Your task to perform on an android device: Go to Wikipedia Image 0: 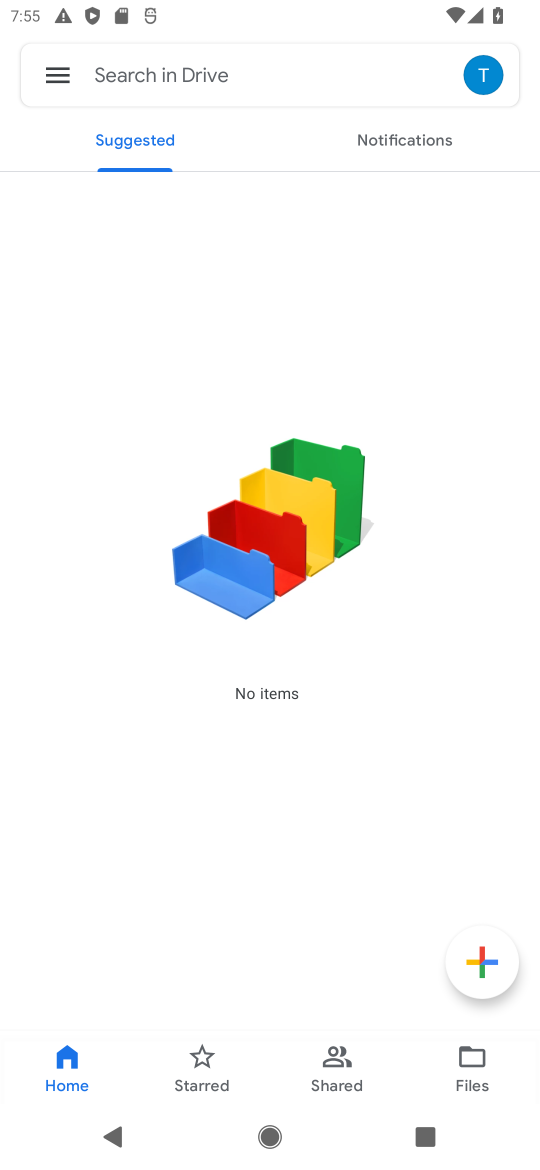
Step 0: press home button
Your task to perform on an android device: Go to Wikipedia Image 1: 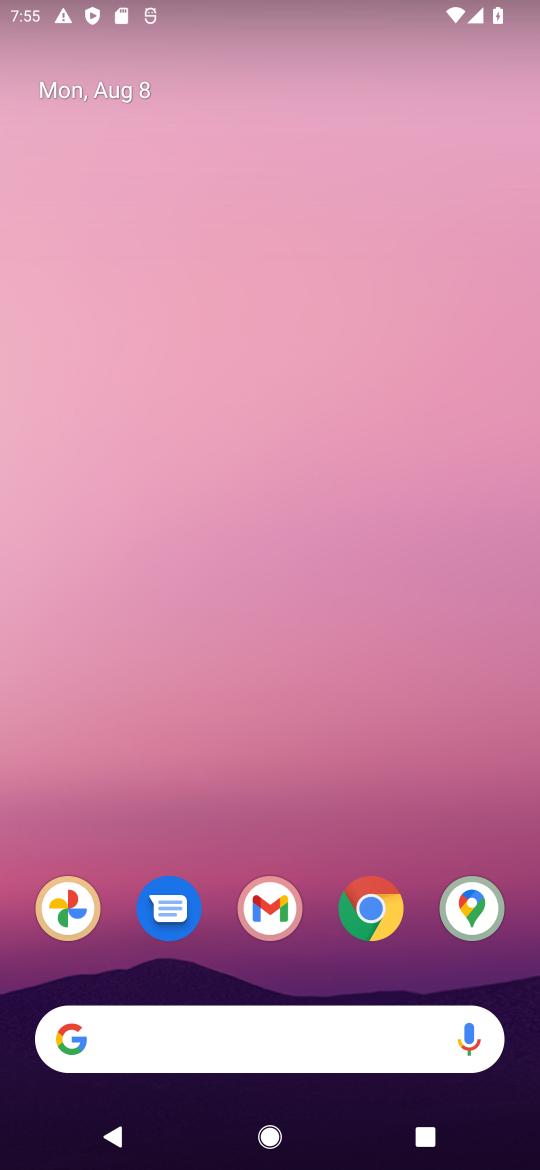
Step 1: click (368, 912)
Your task to perform on an android device: Go to Wikipedia Image 2: 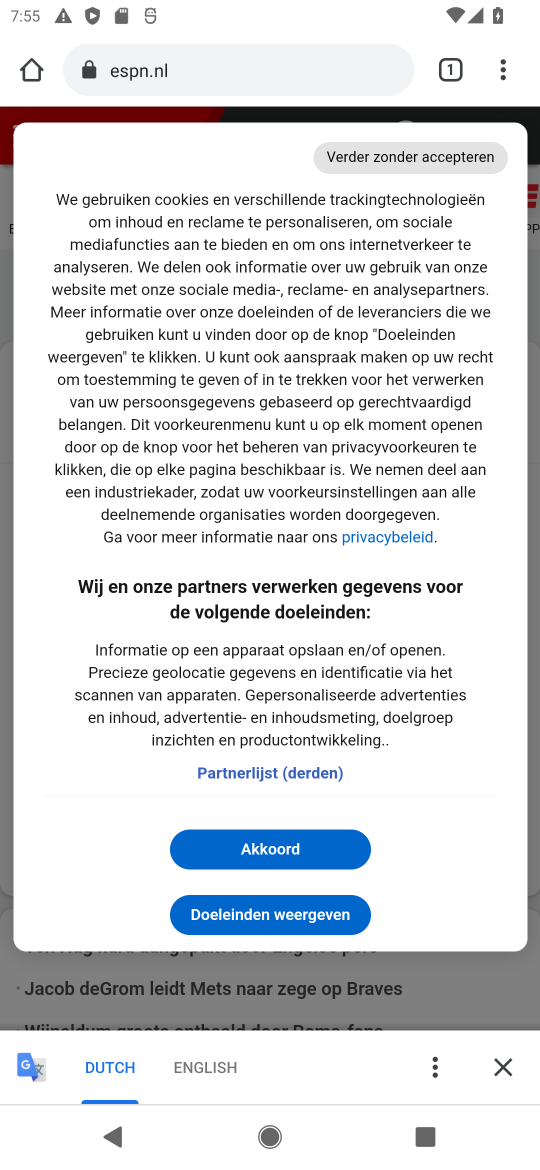
Step 2: click (449, 64)
Your task to perform on an android device: Go to Wikipedia Image 3: 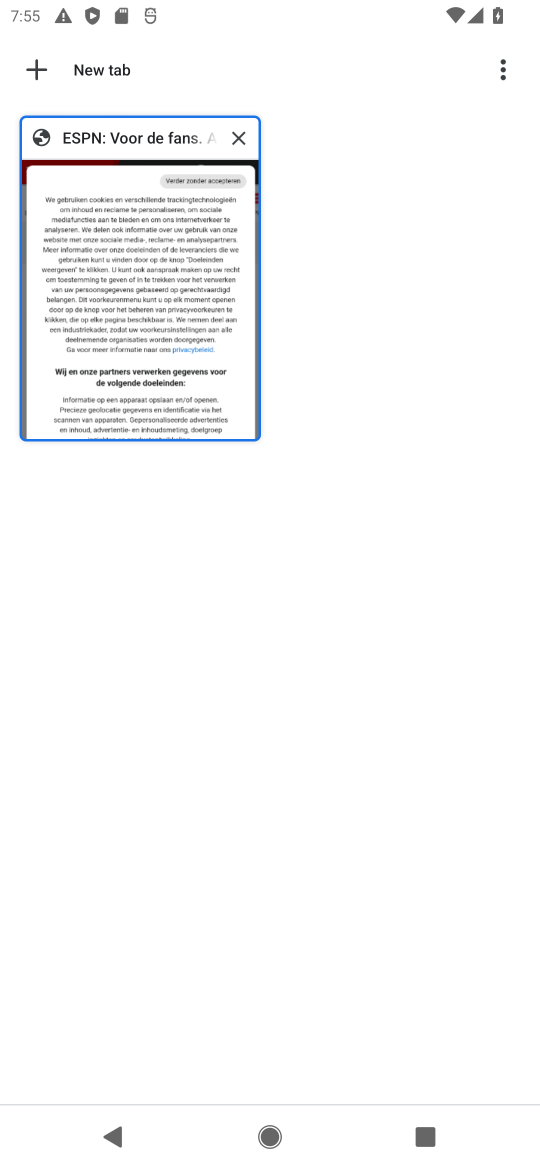
Step 3: click (514, 71)
Your task to perform on an android device: Go to Wikipedia Image 4: 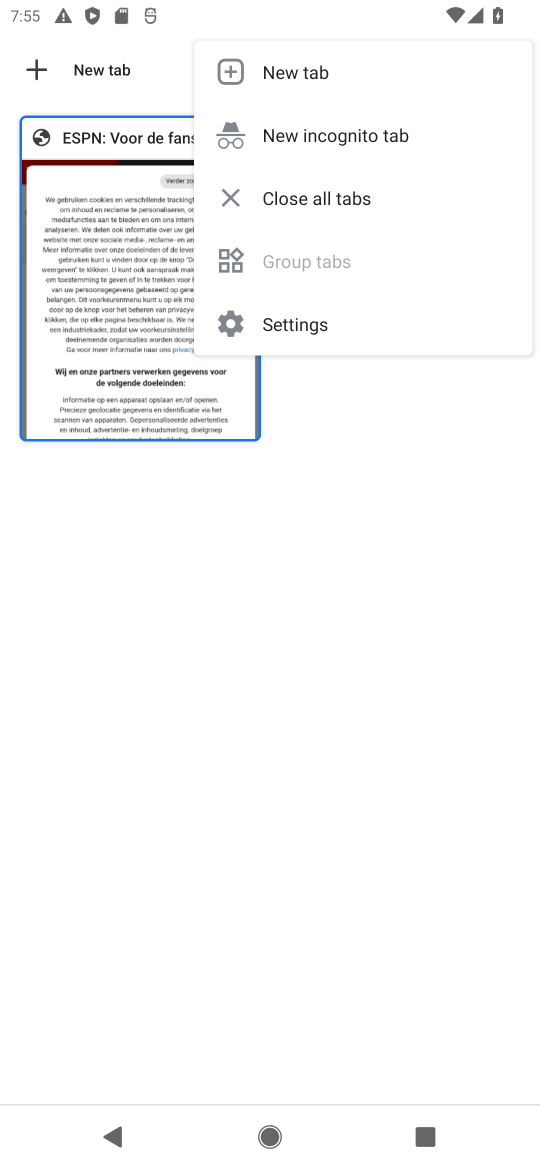
Step 4: click (405, 83)
Your task to perform on an android device: Go to Wikipedia Image 5: 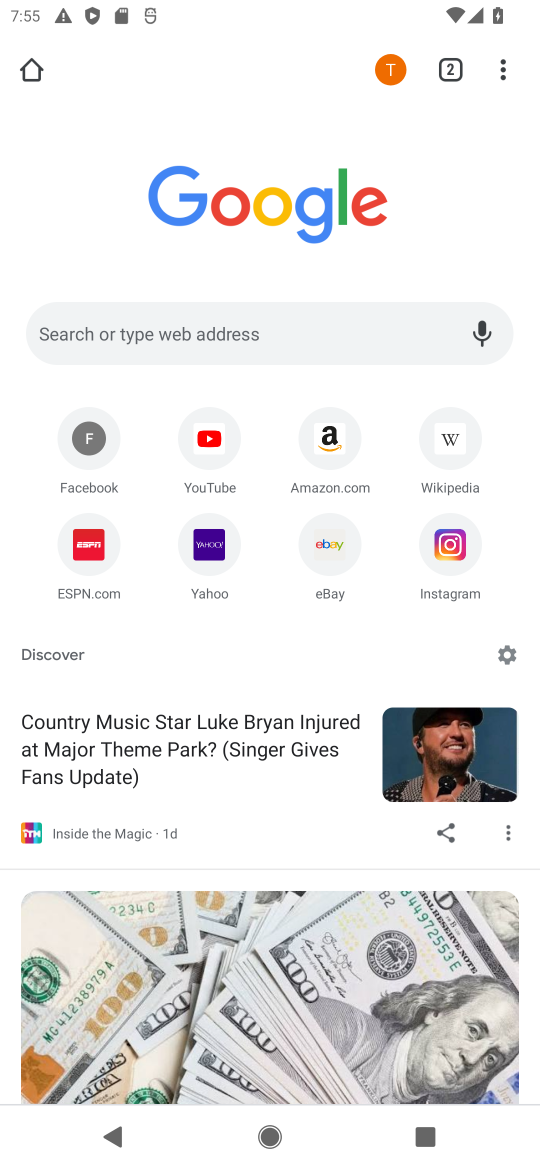
Step 5: click (36, 75)
Your task to perform on an android device: Go to Wikipedia Image 6: 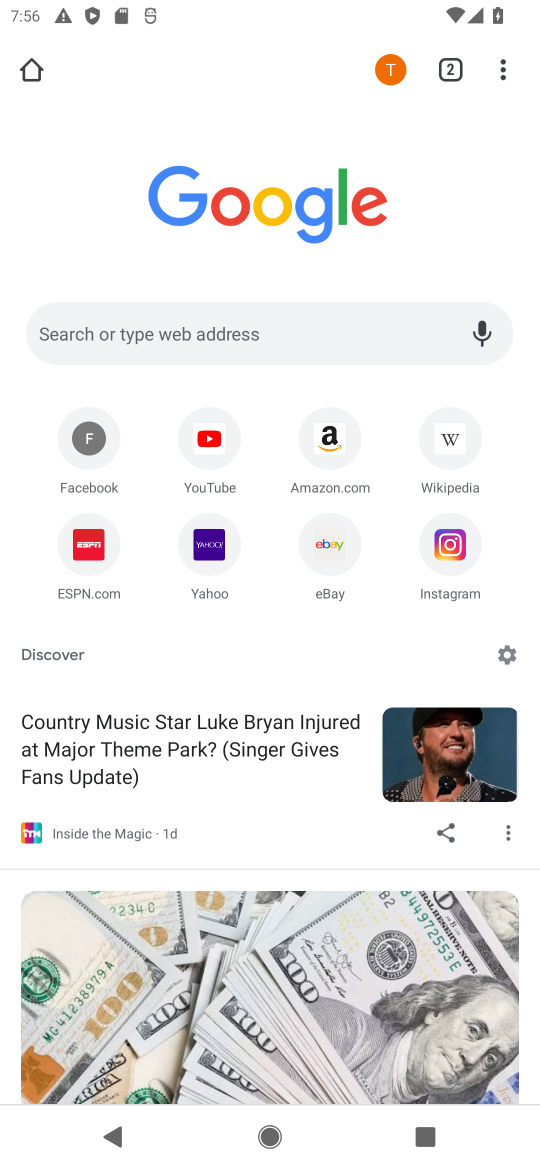
Step 6: click (452, 454)
Your task to perform on an android device: Go to Wikipedia Image 7: 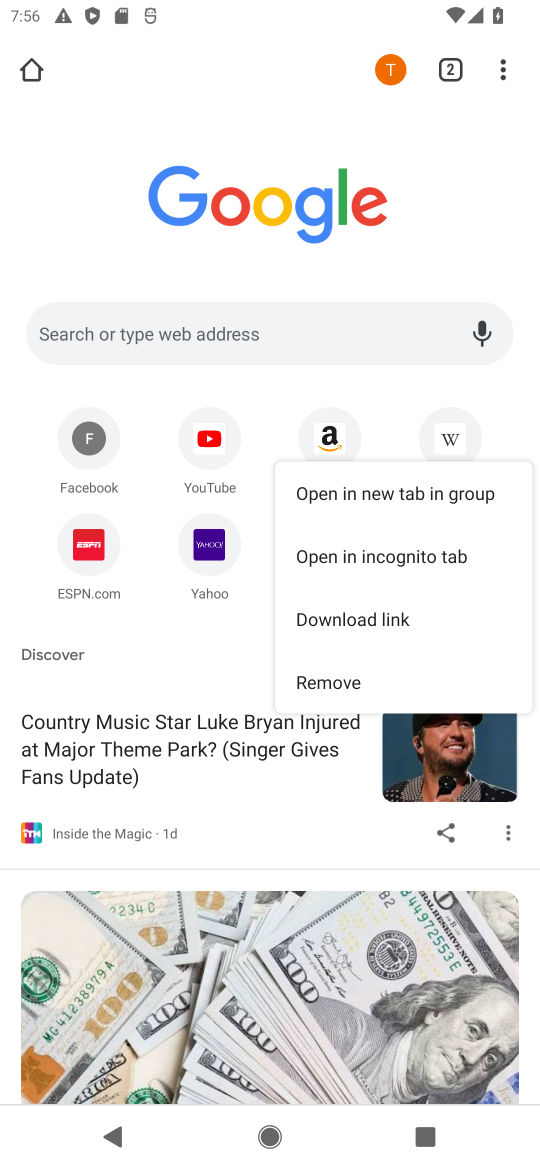
Step 7: click (397, 499)
Your task to perform on an android device: Go to Wikipedia Image 8: 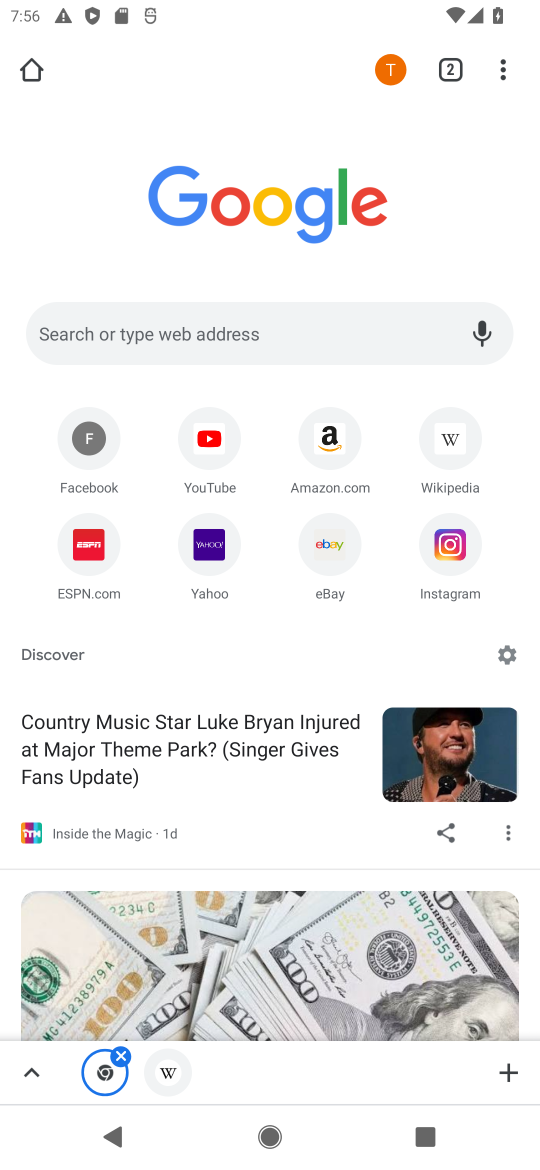
Step 8: click (457, 424)
Your task to perform on an android device: Go to Wikipedia Image 9: 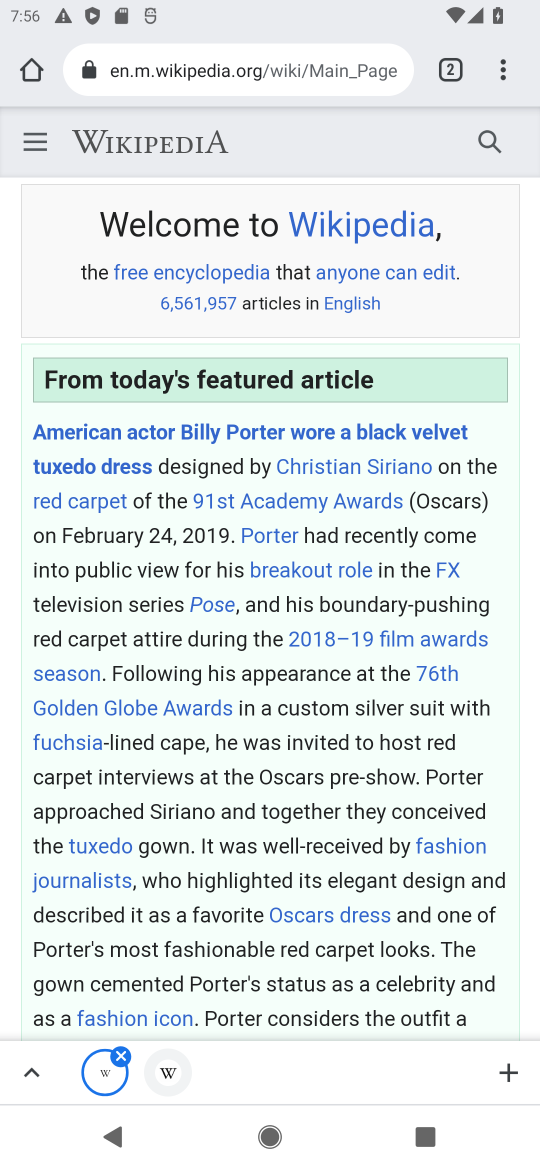
Step 9: task complete